Your task to perform on an android device: turn notification dots on Image 0: 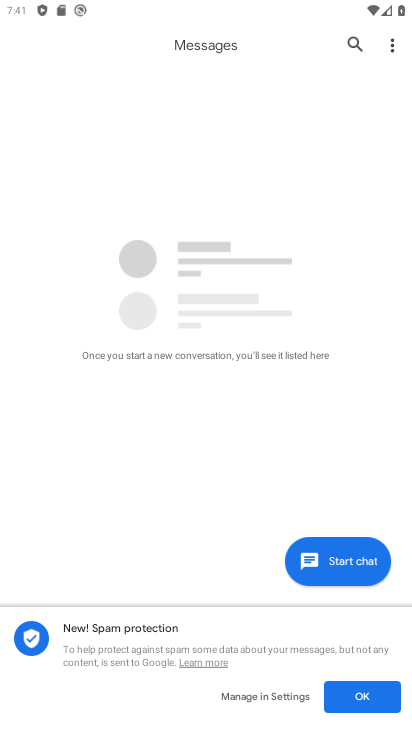
Step 0: press home button
Your task to perform on an android device: turn notification dots on Image 1: 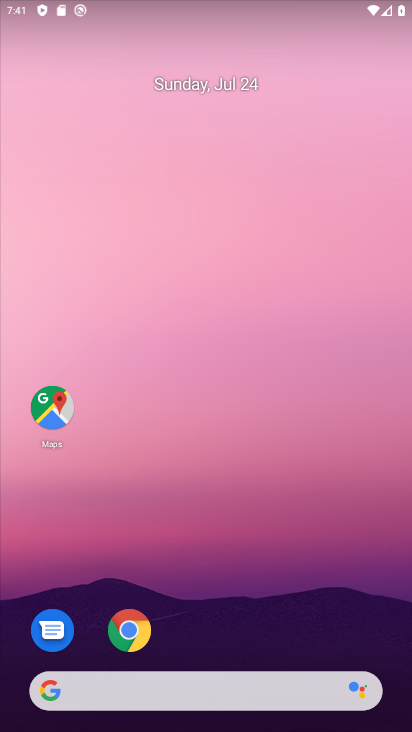
Step 1: drag from (214, 628) to (222, 146)
Your task to perform on an android device: turn notification dots on Image 2: 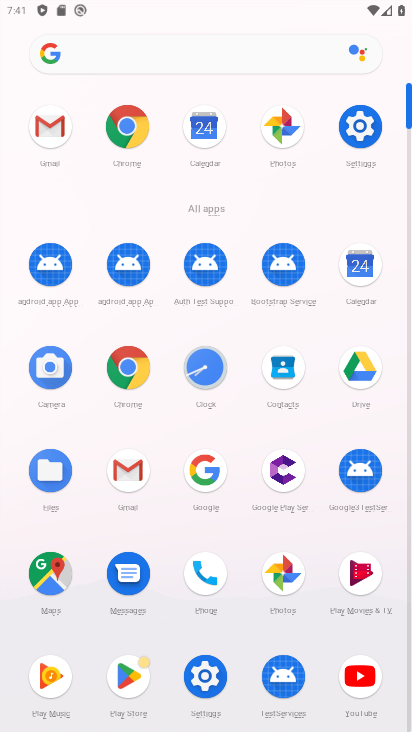
Step 2: click (348, 122)
Your task to perform on an android device: turn notification dots on Image 3: 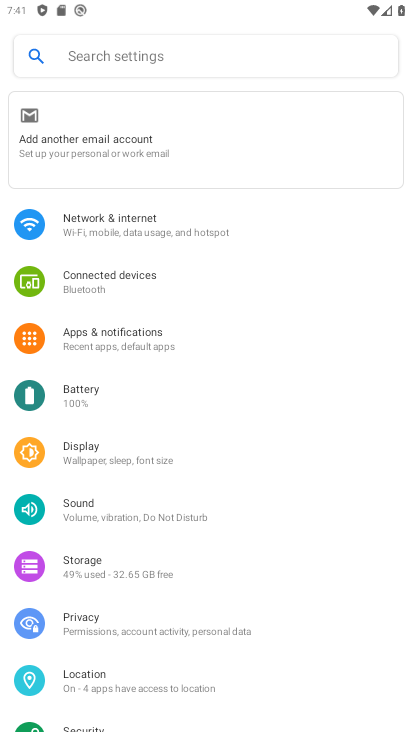
Step 3: click (207, 327)
Your task to perform on an android device: turn notification dots on Image 4: 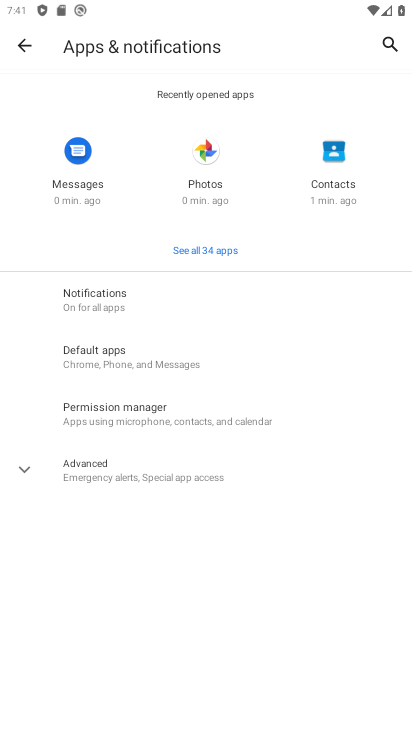
Step 4: click (190, 306)
Your task to perform on an android device: turn notification dots on Image 5: 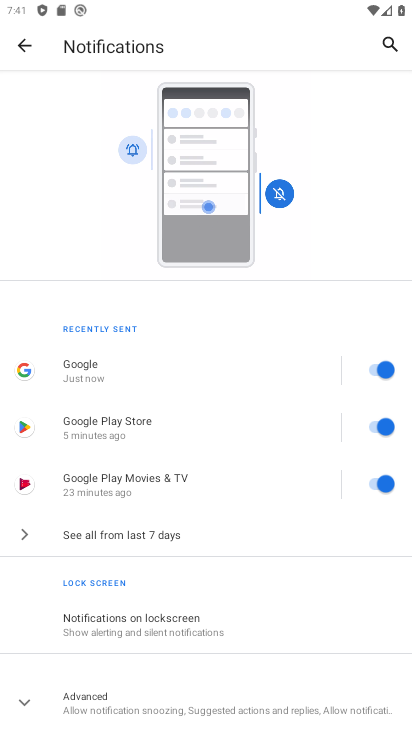
Step 5: drag from (242, 688) to (185, 309)
Your task to perform on an android device: turn notification dots on Image 6: 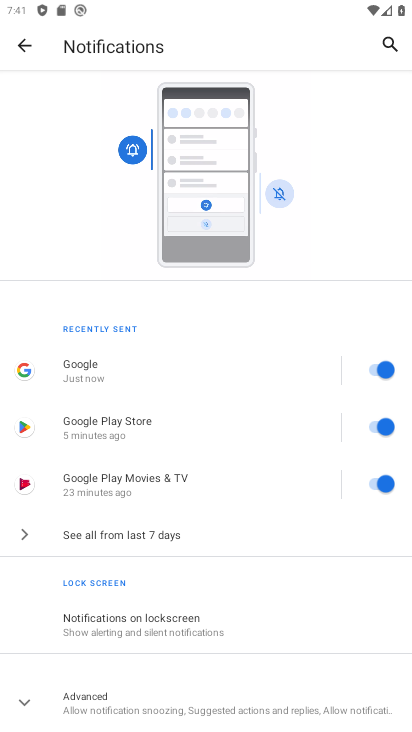
Step 6: click (145, 704)
Your task to perform on an android device: turn notification dots on Image 7: 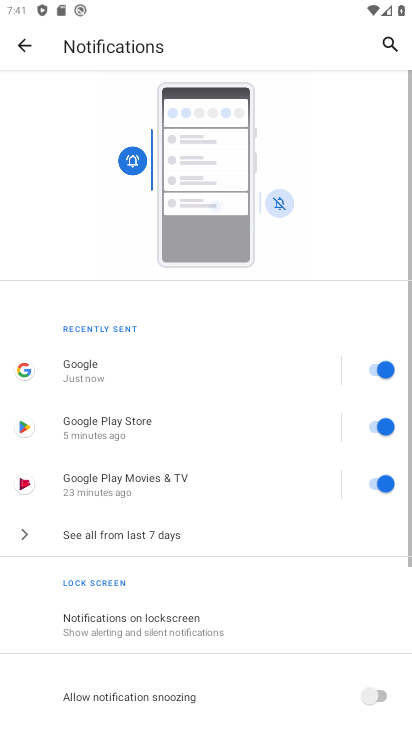
Step 7: task complete